Your task to perform on an android device: Clear the shopping cart on bestbuy.com. Image 0: 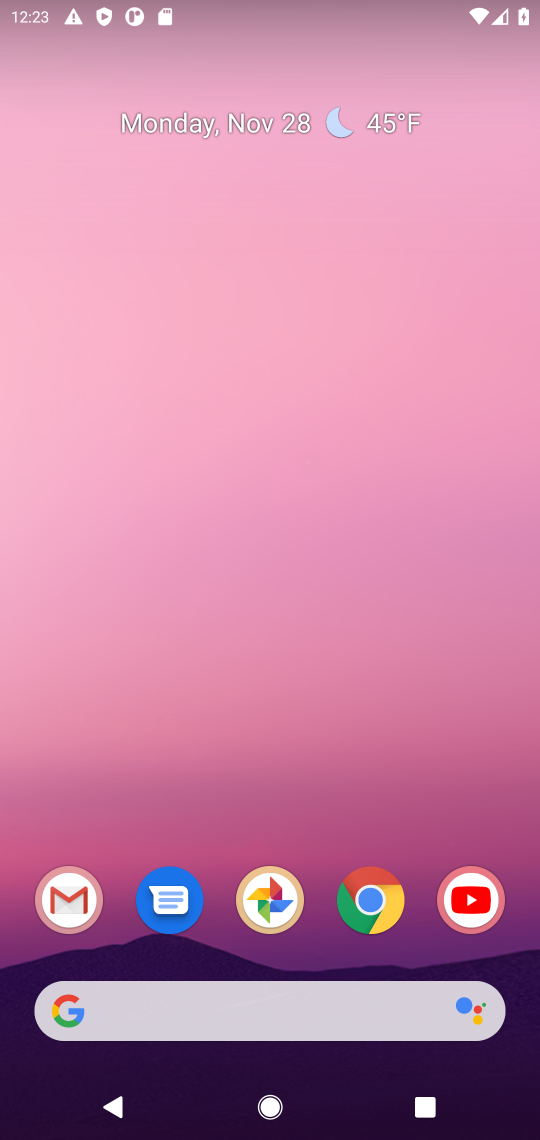
Step 0: click (373, 901)
Your task to perform on an android device: Clear the shopping cart on bestbuy.com. Image 1: 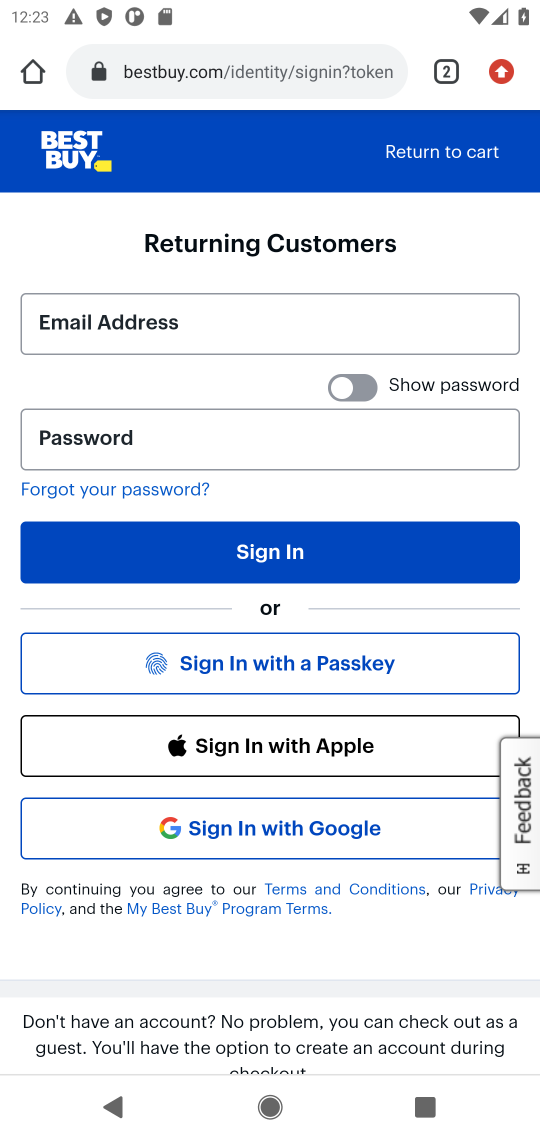
Step 1: press back button
Your task to perform on an android device: Clear the shopping cart on bestbuy.com. Image 2: 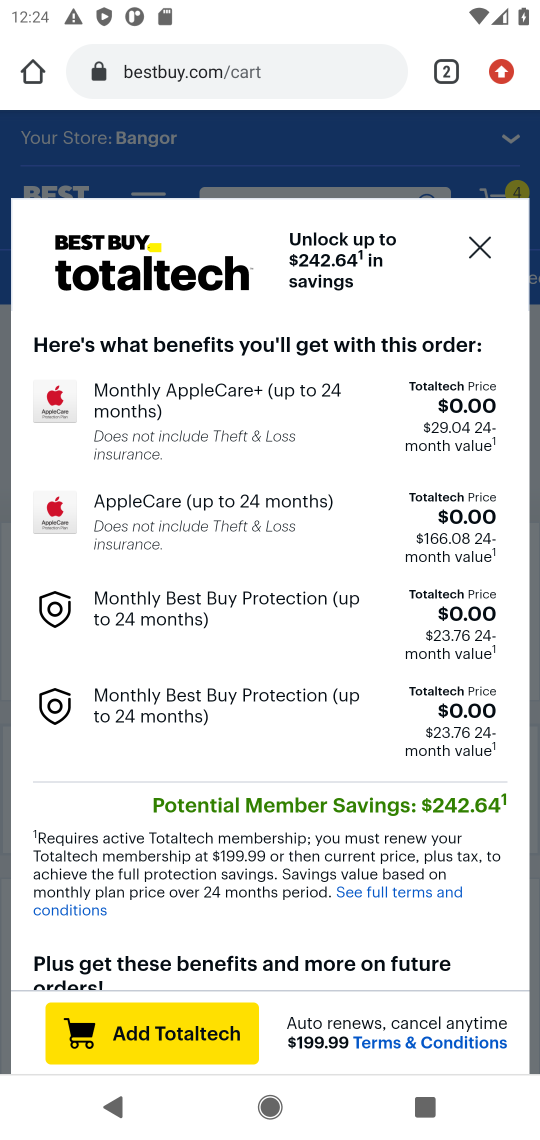
Step 2: click (469, 240)
Your task to perform on an android device: Clear the shopping cart on bestbuy.com. Image 3: 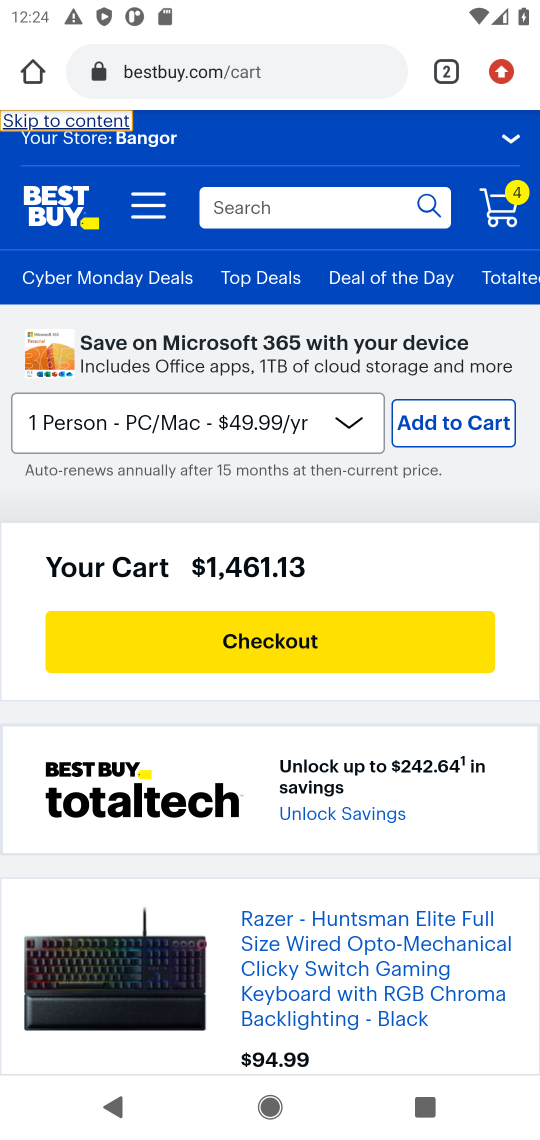
Step 3: click (503, 206)
Your task to perform on an android device: Clear the shopping cart on bestbuy.com. Image 4: 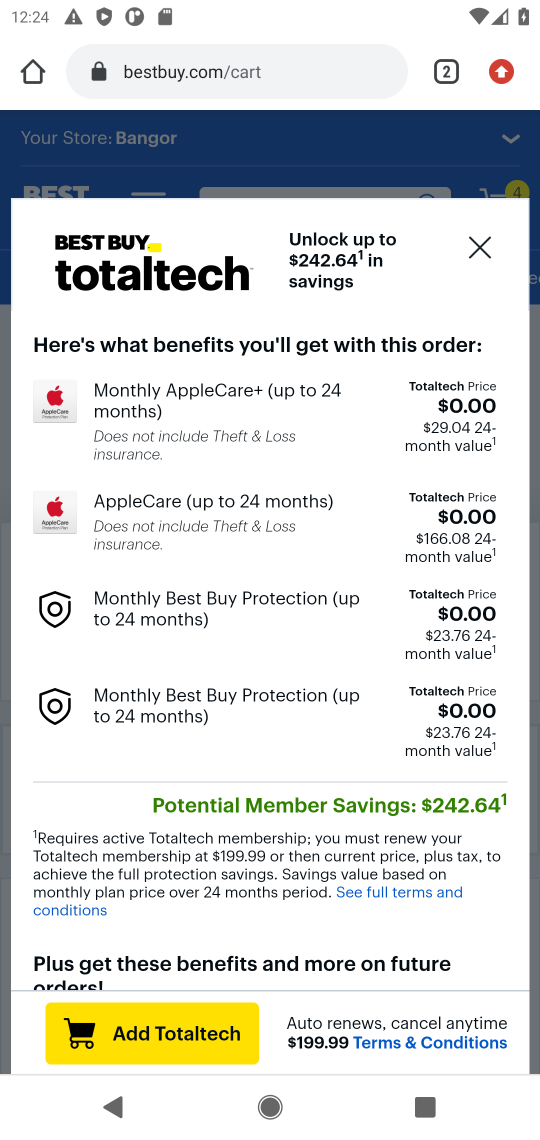
Step 4: click (485, 248)
Your task to perform on an android device: Clear the shopping cart on bestbuy.com. Image 5: 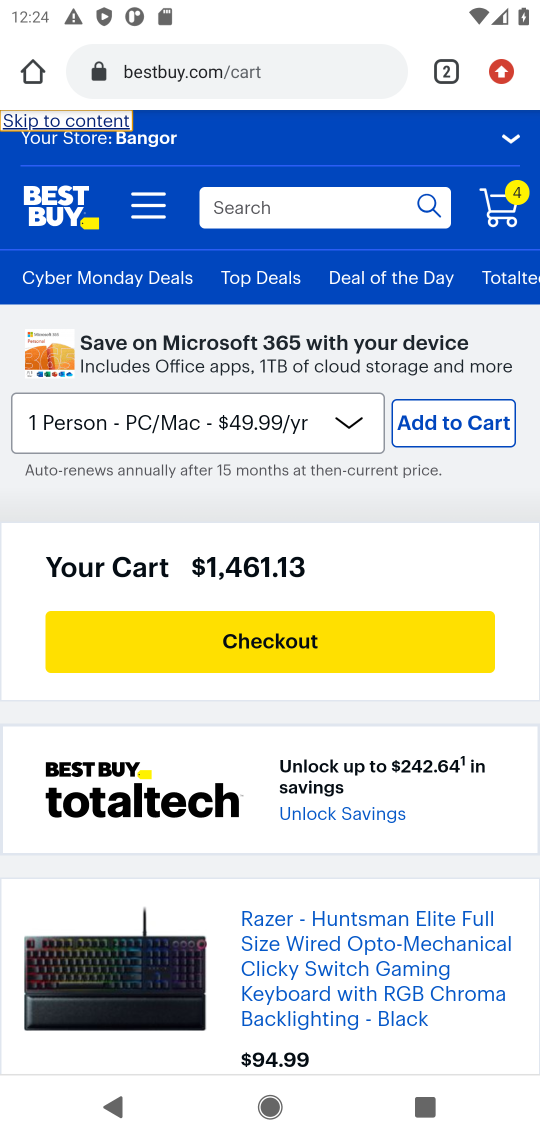
Step 5: drag from (380, 552) to (388, 262)
Your task to perform on an android device: Clear the shopping cart on bestbuy.com. Image 6: 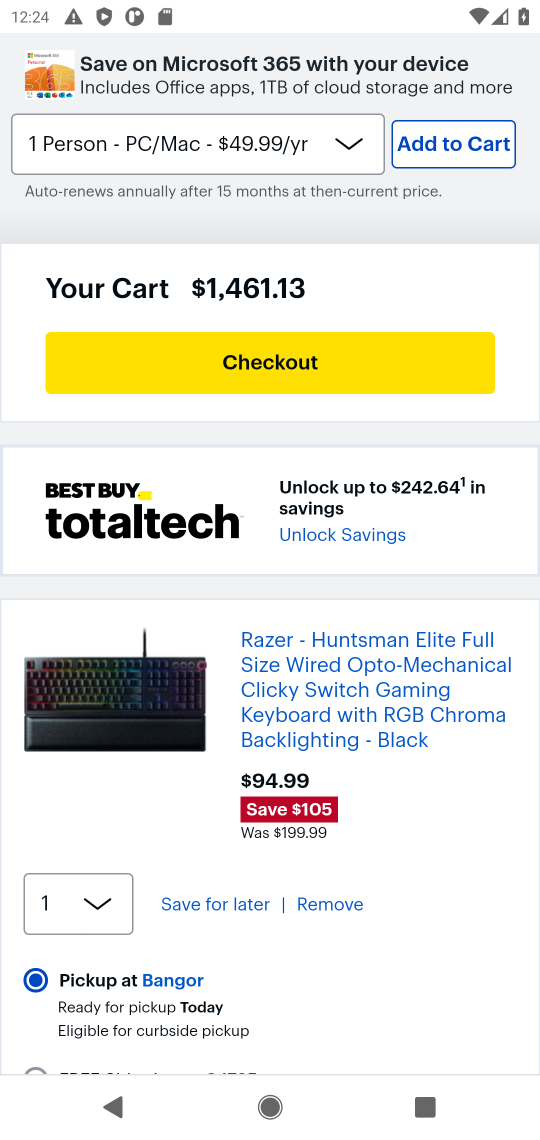
Step 6: drag from (411, 770) to (425, 383)
Your task to perform on an android device: Clear the shopping cart on bestbuy.com. Image 7: 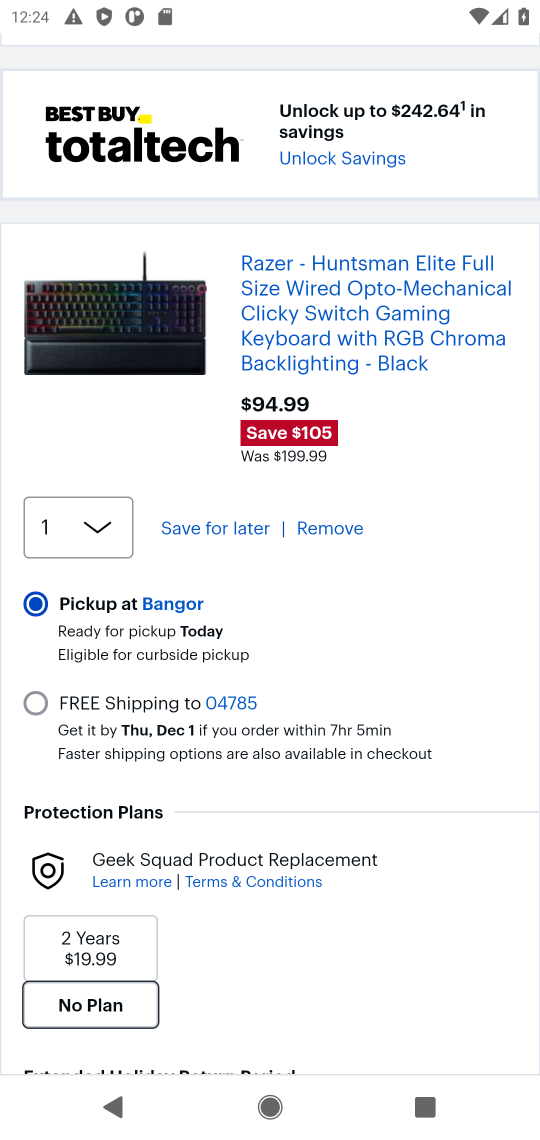
Step 7: click (329, 532)
Your task to perform on an android device: Clear the shopping cart on bestbuy.com. Image 8: 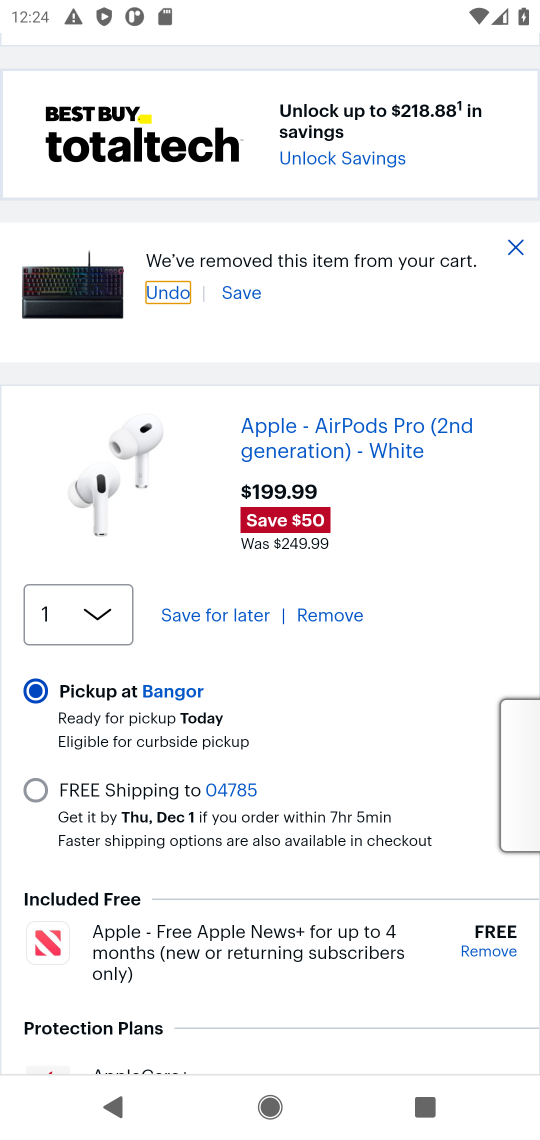
Step 8: click (316, 614)
Your task to perform on an android device: Clear the shopping cart on bestbuy.com. Image 9: 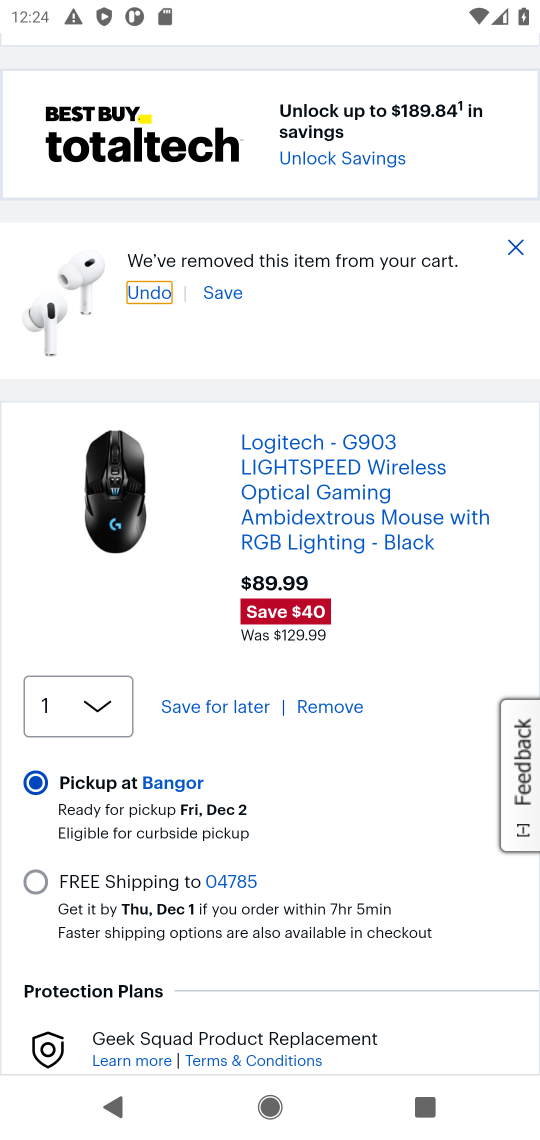
Step 9: click (313, 702)
Your task to perform on an android device: Clear the shopping cart on bestbuy.com. Image 10: 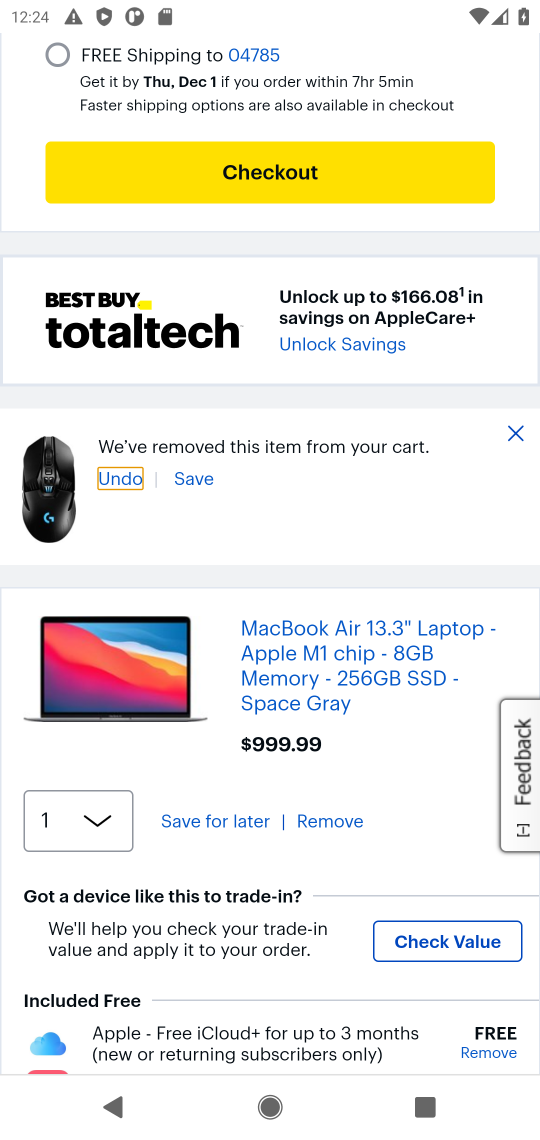
Step 10: click (310, 814)
Your task to perform on an android device: Clear the shopping cart on bestbuy.com. Image 11: 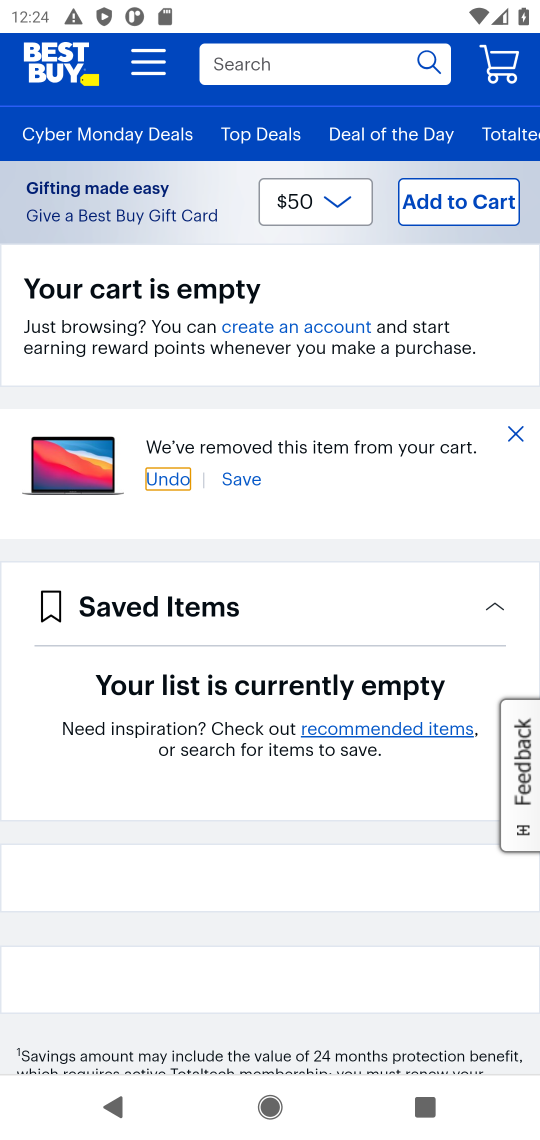
Step 11: task complete